Your task to perform on an android device: Open sound settings Image 0: 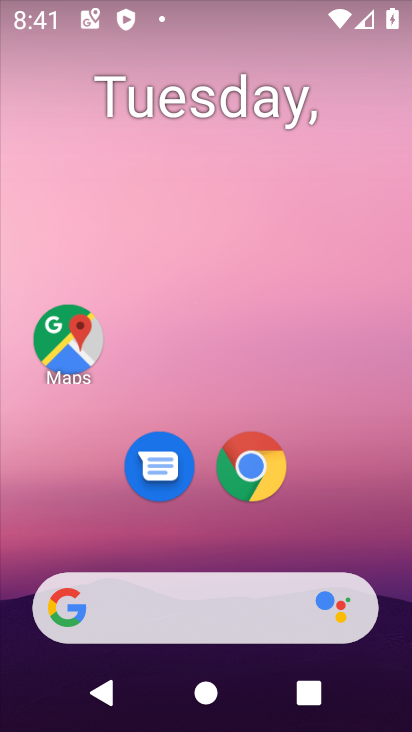
Step 0: drag from (205, 538) to (211, 190)
Your task to perform on an android device: Open sound settings Image 1: 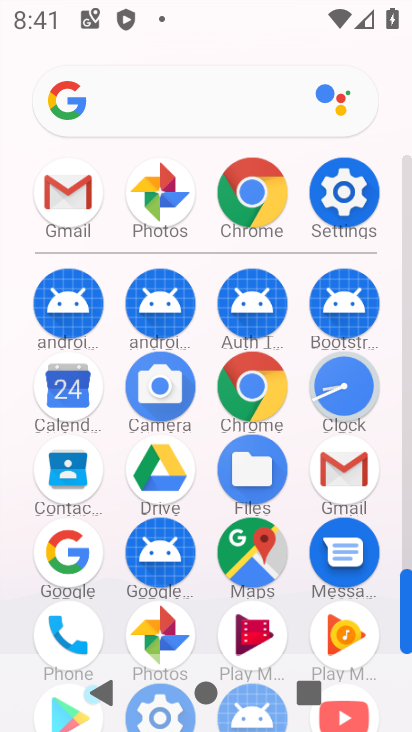
Step 1: click (343, 216)
Your task to perform on an android device: Open sound settings Image 2: 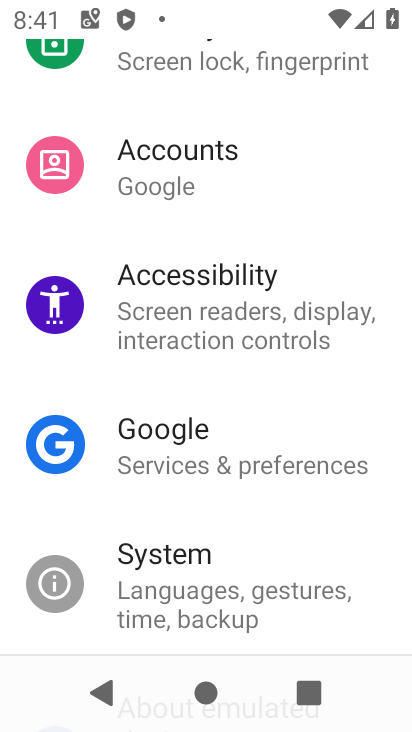
Step 2: drag from (197, 278) to (180, 566)
Your task to perform on an android device: Open sound settings Image 3: 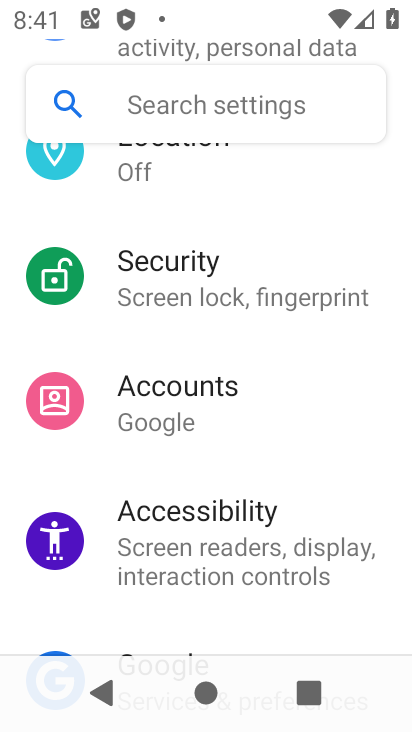
Step 3: drag from (192, 318) to (168, 665)
Your task to perform on an android device: Open sound settings Image 4: 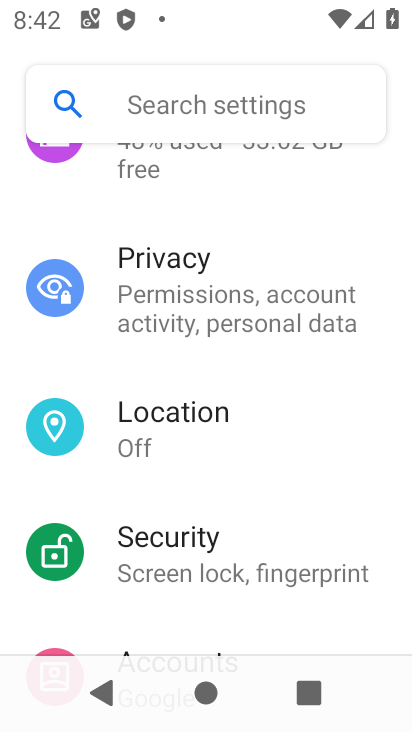
Step 4: drag from (238, 397) to (223, 583)
Your task to perform on an android device: Open sound settings Image 5: 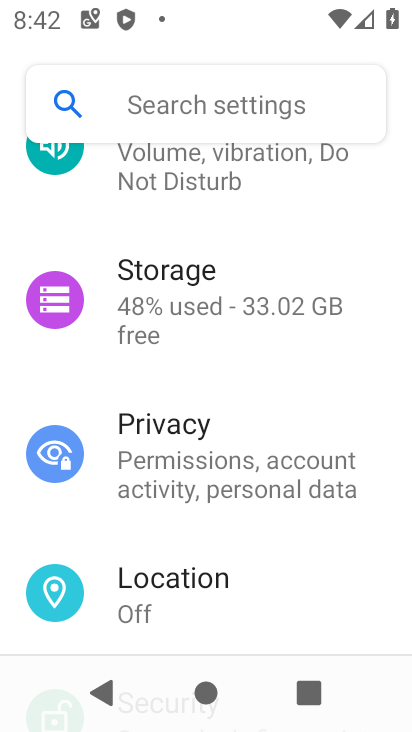
Step 5: drag from (236, 265) to (228, 499)
Your task to perform on an android device: Open sound settings Image 6: 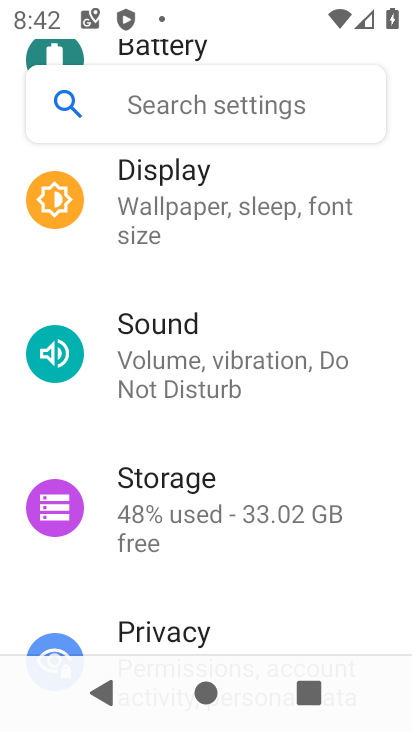
Step 6: click (203, 347)
Your task to perform on an android device: Open sound settings Image 7: 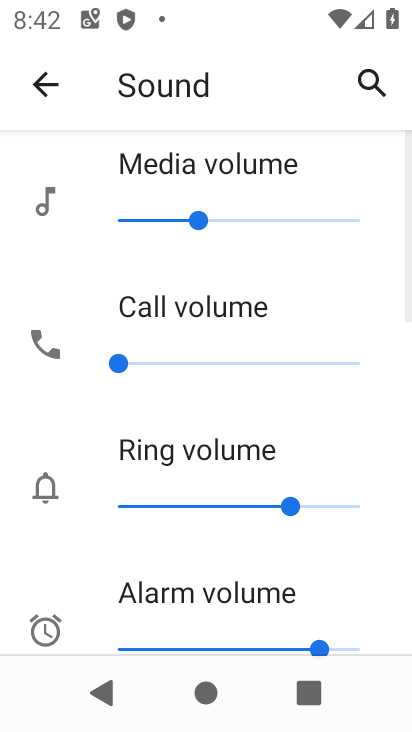
Step 7: task complete